Your task to perform on an android device: Open settings on Google Maps Image 0: 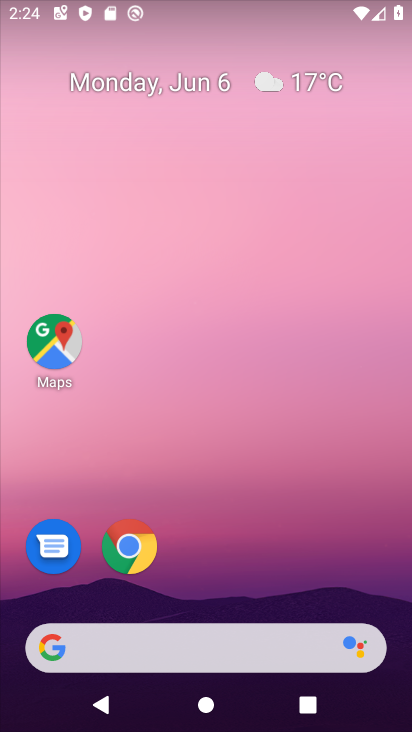
Step 0: click (297, 591)
Your task to perform on an android device: Open settings on Google Maps Image 1: 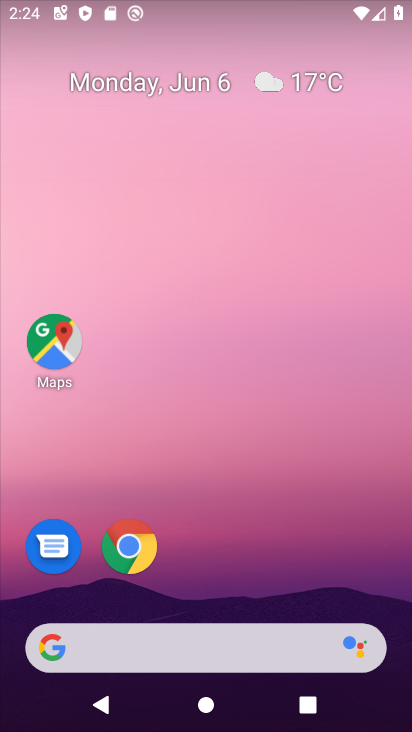
Step 1: click (70, 358)
Your task to perform on an android device: Open settings on Google Maps Image 2: 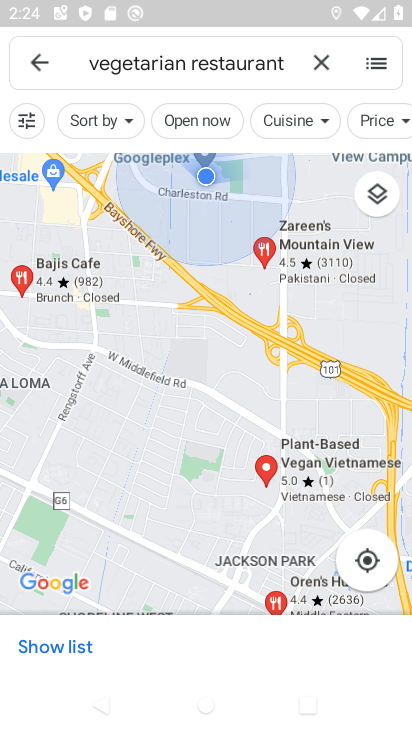
Step 2: click (364, 71)
Your task to perform on an android device: Open settings on Google Maps Image 3: 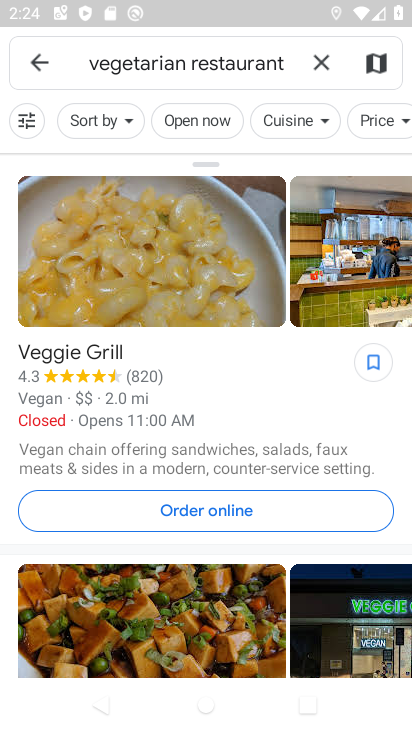
Step 3: click (318, 63)
Your task to perform on an android device: Open settings on Google Maps Image 4: 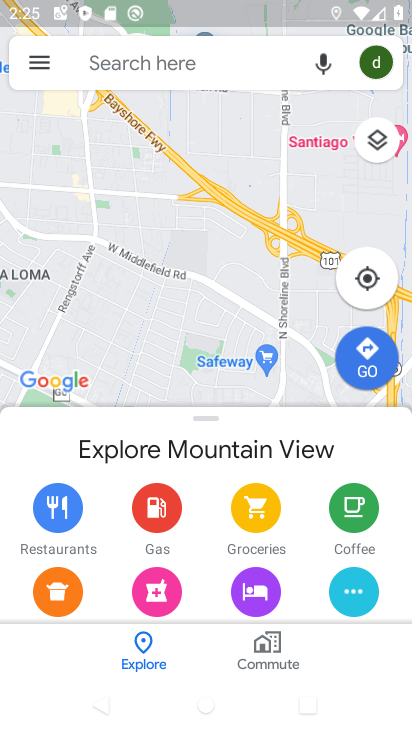
Step 4: task complete